Your task to perform on an android device: Open settings on Google Maps Image 0: 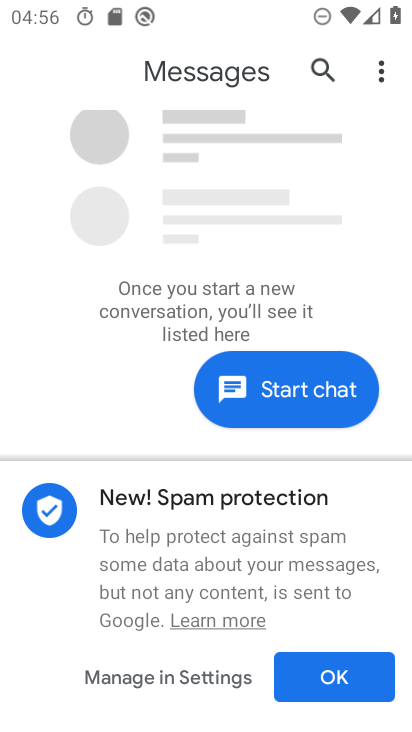
Step 0: press home button
Your task to perform on an android device: Open settings on Google Maps Image 1: 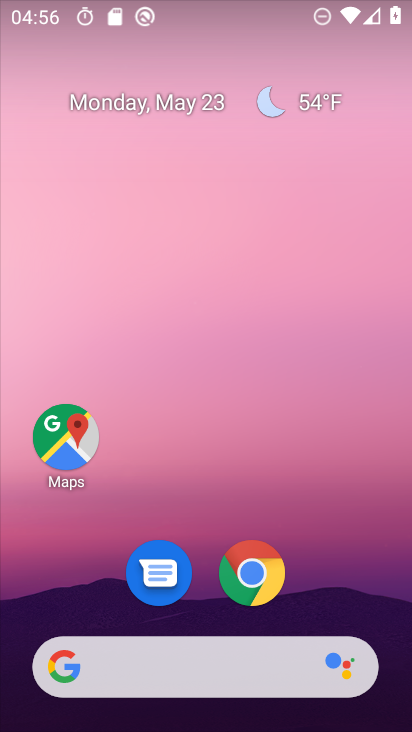
Step 1: click (66, 444)
Your task to perform on an android device: Open settings on Google Maps Image 2: 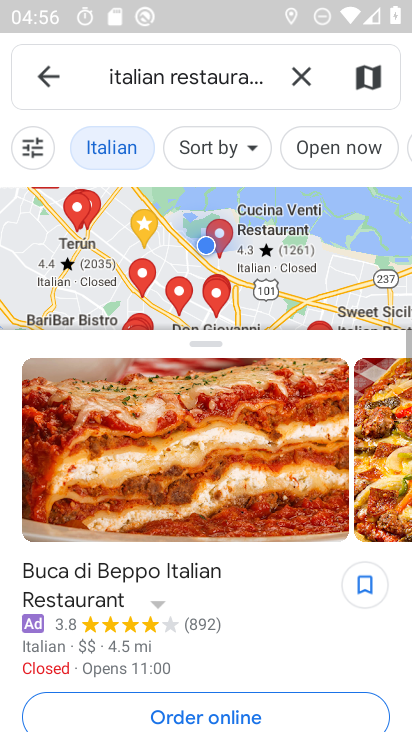
Step 2: click (44, 72)
Your task to perform on an android device: Open settings on Google Maps Image 3: 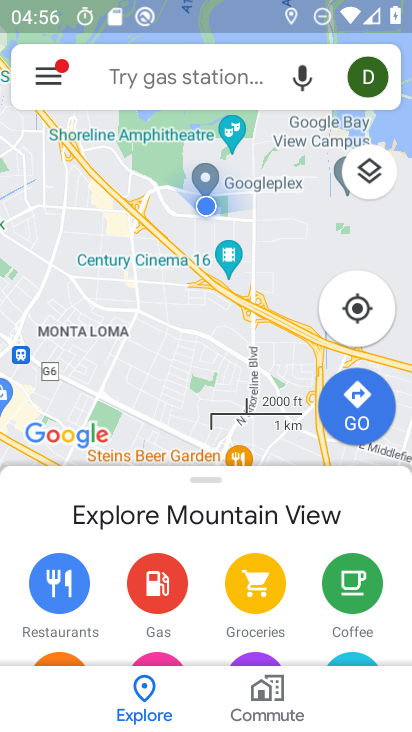
Step 3: click (44, 72)
Your task to perform on an android device: Open settings on Google Maps Image 4: 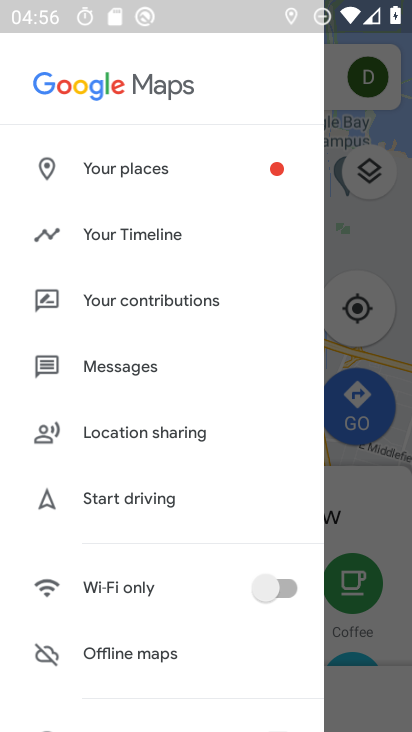
Step 4: drag from (175, 608) to (172, 277)
Your task to perform on an android device: Open settings on Google Maps Image 5: 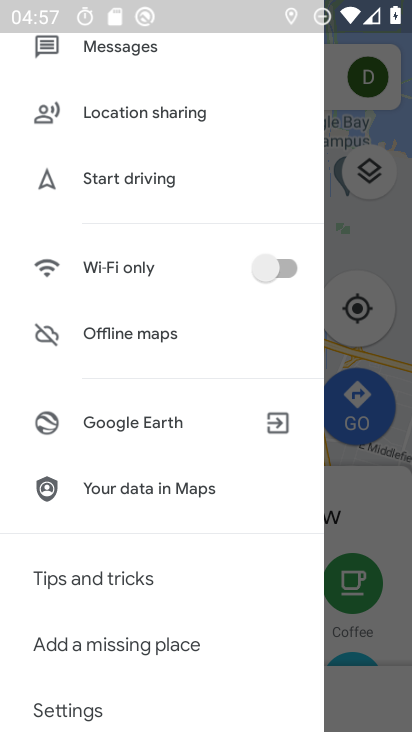
Step 5: drag from (162, 675) to (192, 351)
Your task to perform on an android device: Open settings on Google Maps Image 6: 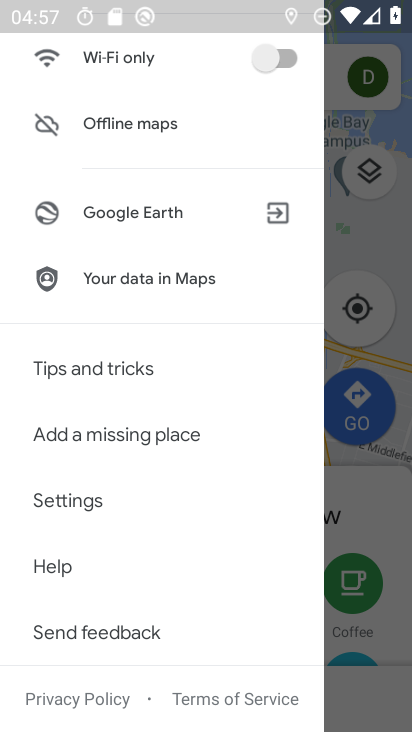
Step 6: click (89, 499)
Your task to perform on an android device: Open settings on Google Maps Image 7: 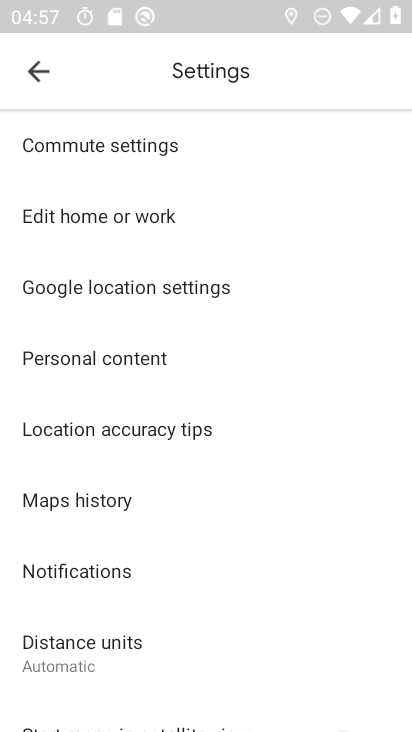
Step 7: task complete